Your task to perform on an android device: Go to privacy settings Image 0: 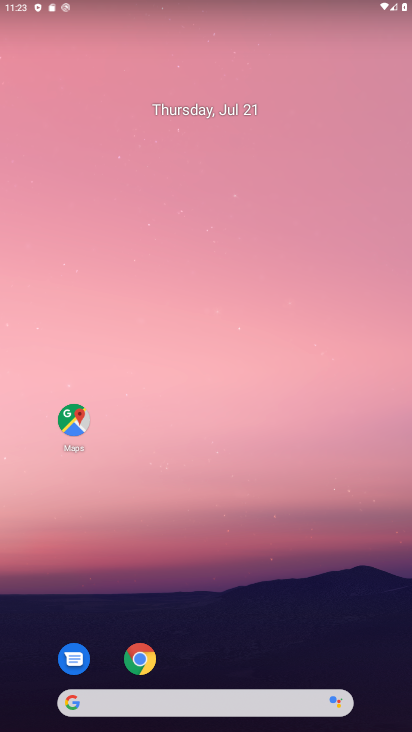
Step 0: drag from (172, 674) to (216, 122)
Your task to perform on an android device: Go to privacy settings Image 1: 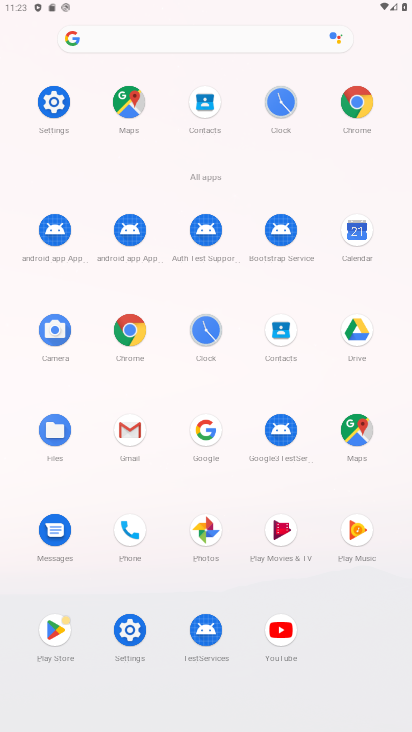
Step 1: click (64, 109)
Your task to perform on an android device: Go to privacy settings Image 2: 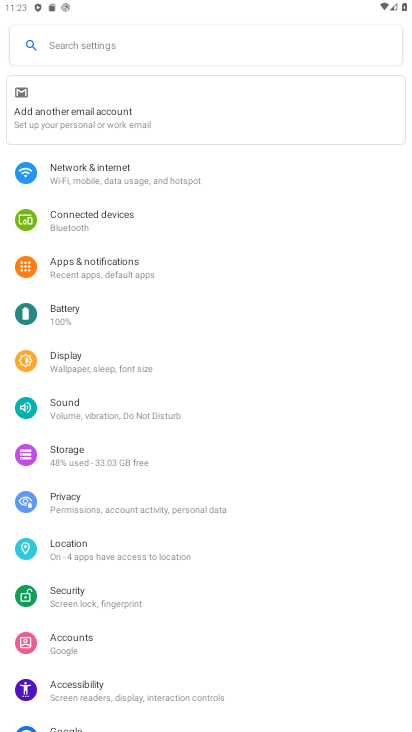
Step 2: click (73, 501)
Your task to perform on an android device: Go to privacy settings Image 3: 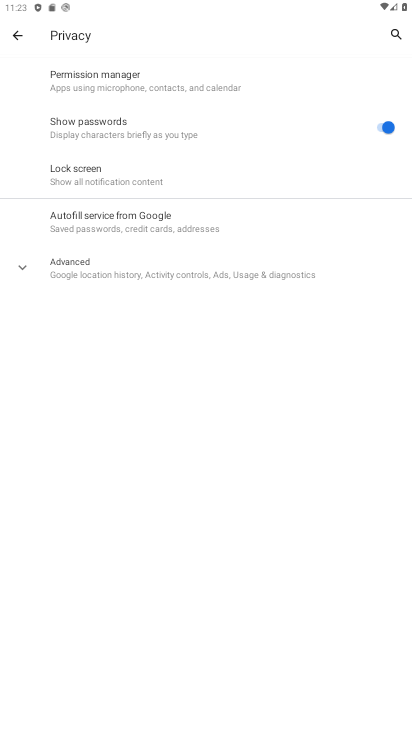
Step 3: task complete